Your task to perform on an android device: Go to Yahoo.com Image 0: 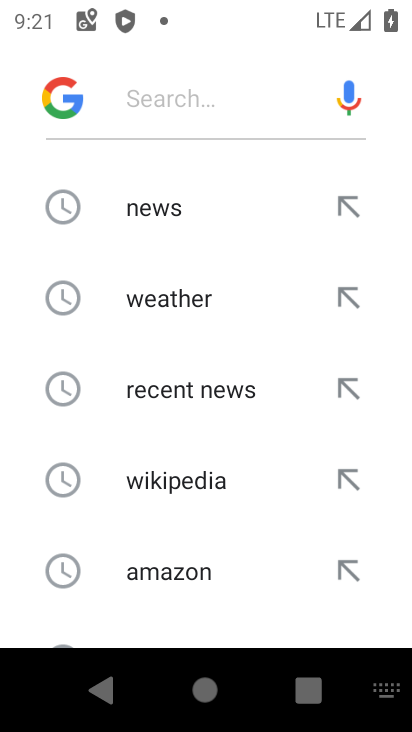
Step 0: press home button
Your task to perform on an android device: Go to Yahoo.com Image 1: 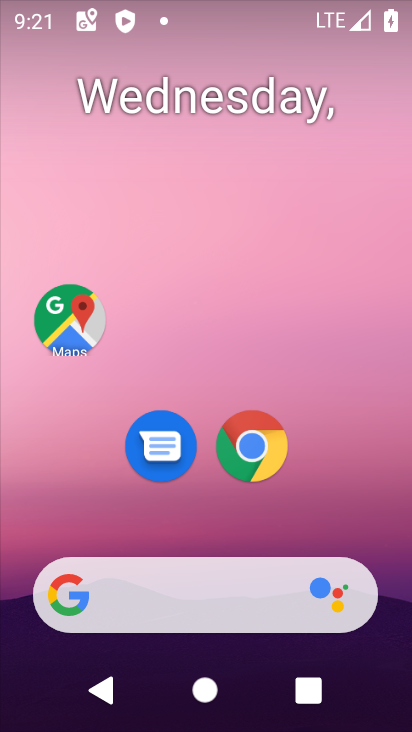
Step 1: click (249, 456)
Your task to perform on an android device: Go to Yahoo.com Image 2: 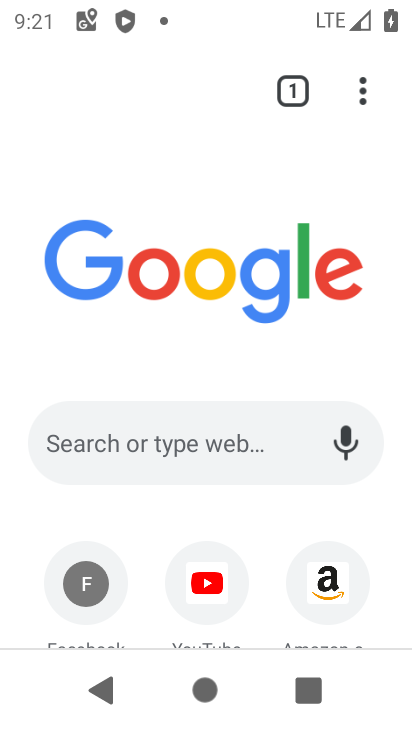
Step 2: drag from (234, 512) to (367, 138)
Your task to perform on an android device: Go to Yahoo.com Image 3: 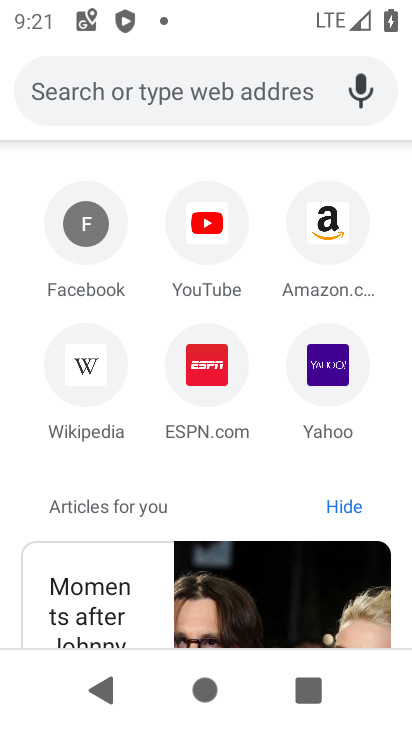
Step 3: click (324, 371)
Your task to perform on an android device: Go to Yahoo.com Image 4: 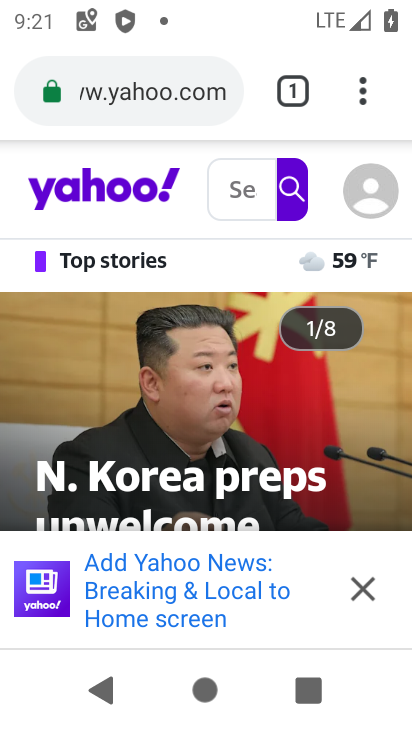
Step 4: click (373, 580)
Your task to perform on an android device: Go to Yahoo.com Image 5: 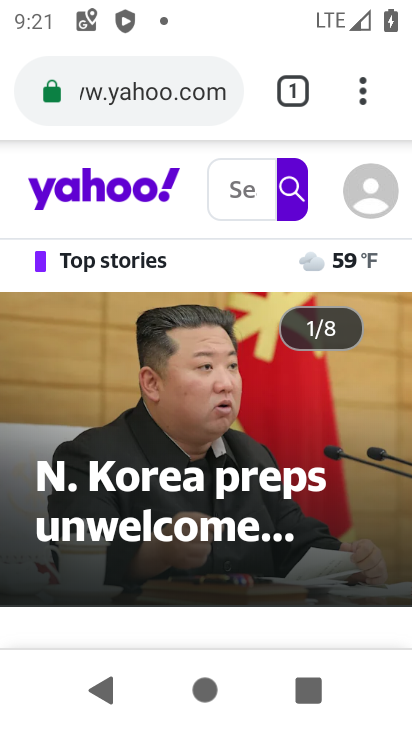
Step 5: task complete